Your task to perform on an android device: Open Amazon Image 0: 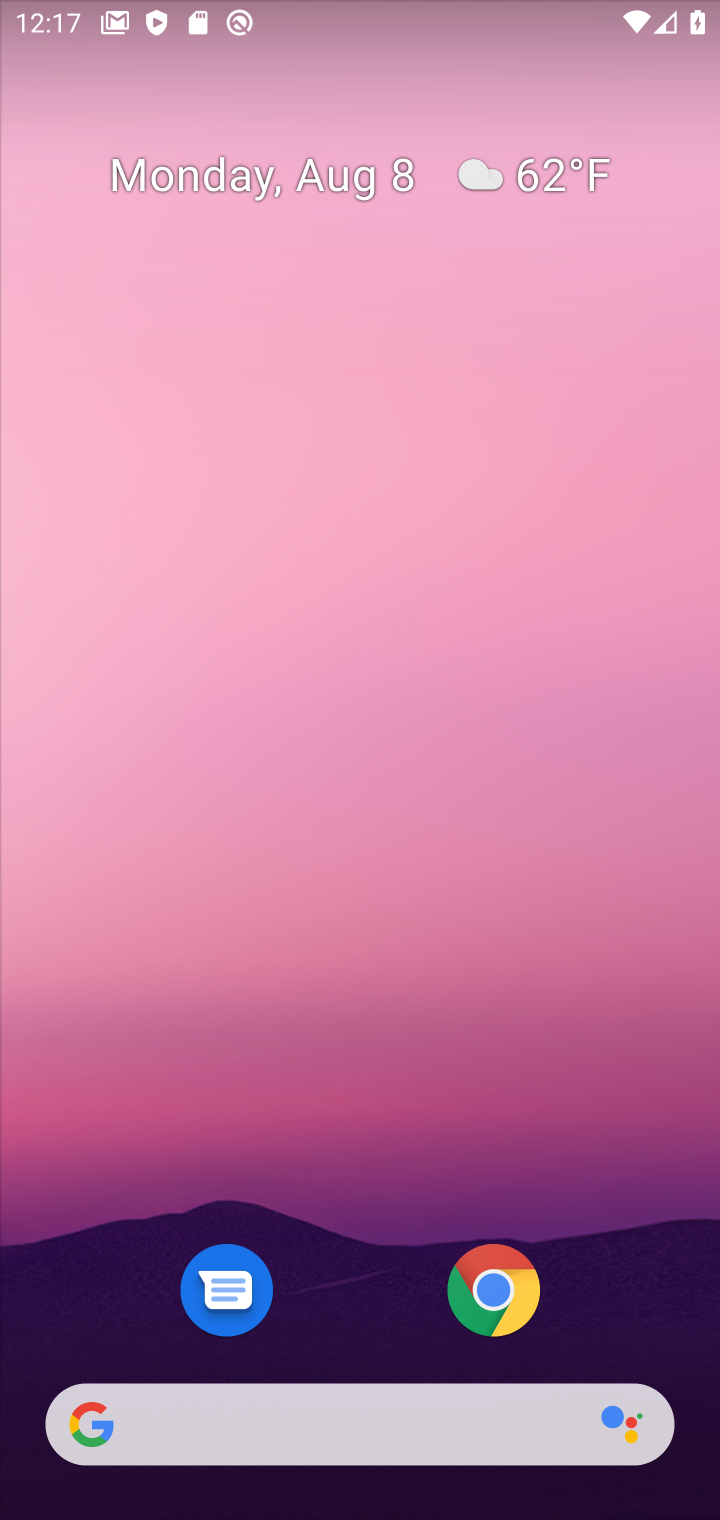
Step 0: click (503, 1266)
Your task to perform on an android device: Open Amazon Image 1: 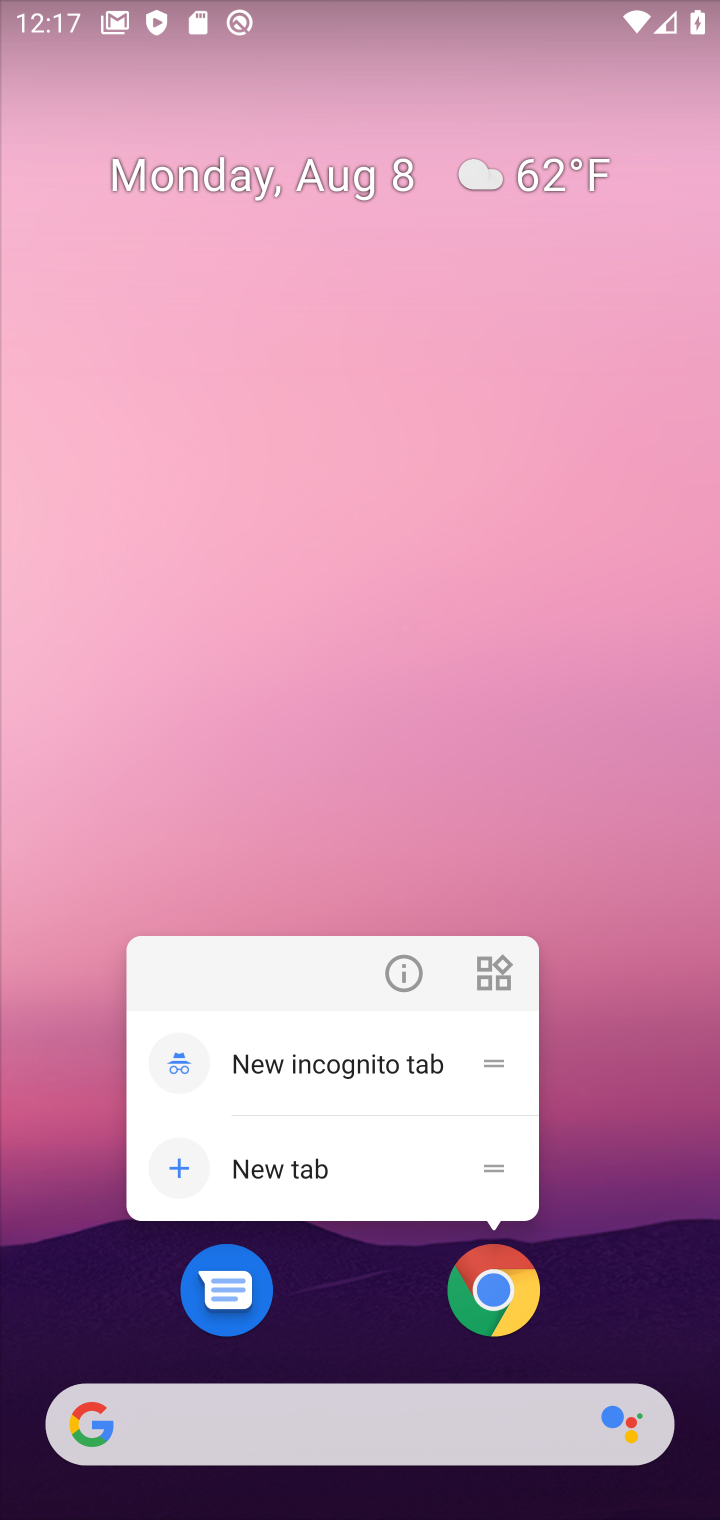
Step 1: click (503, 1266)
Your task to perform on an android device: Open Amazon Image 2: 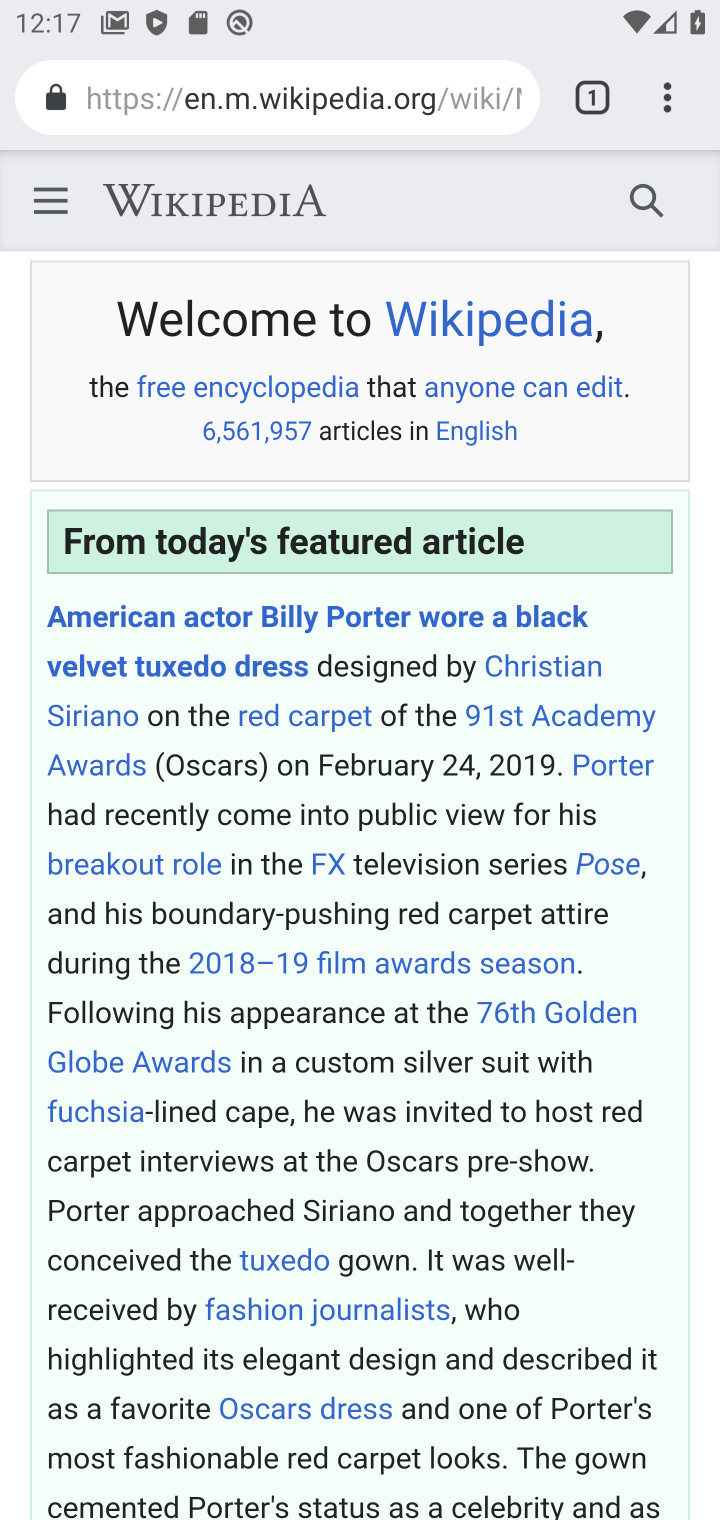
Step 2: click (352, 103)
Your task to perform on an android device: Open Amazon Image 3: 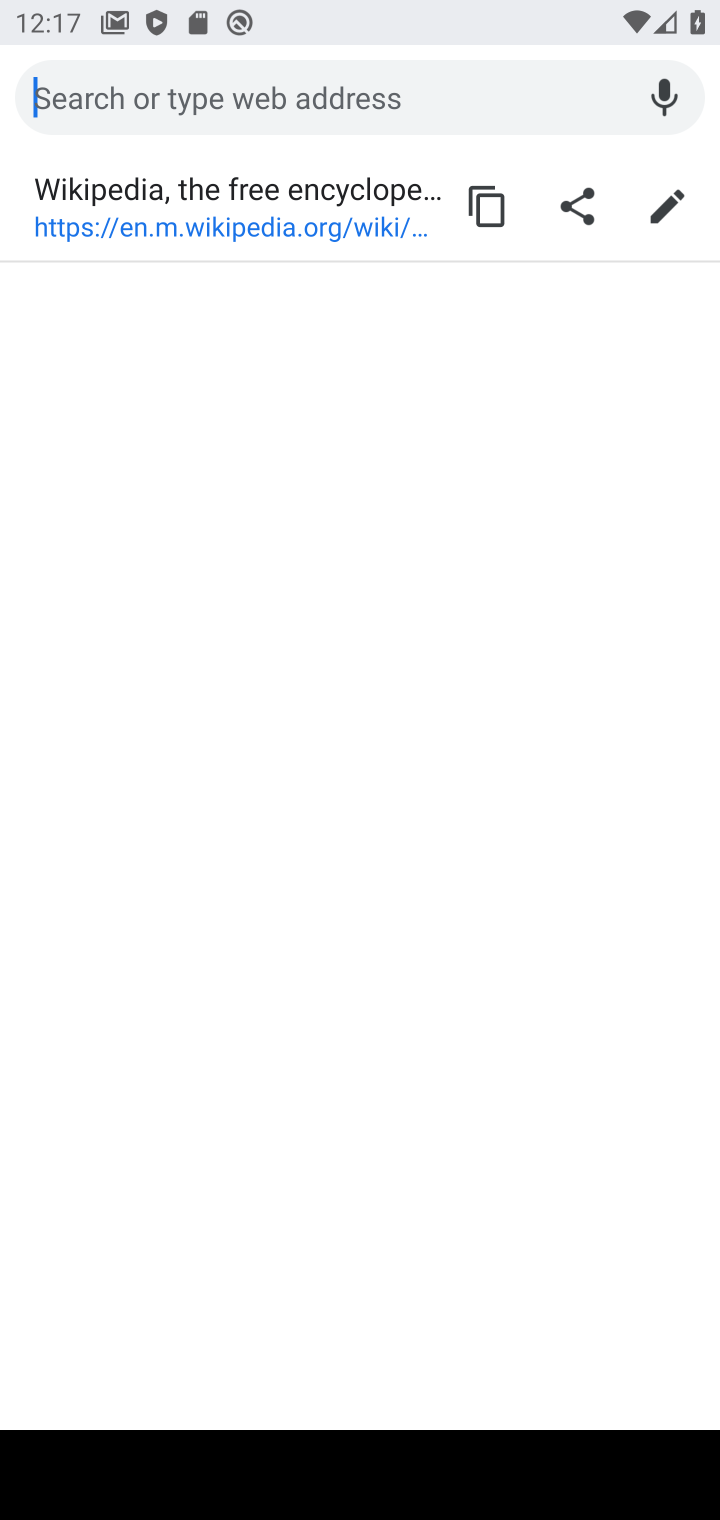
Step 3: type "amazon"
Your task to perform on an android device: Open Amazon Image 4: 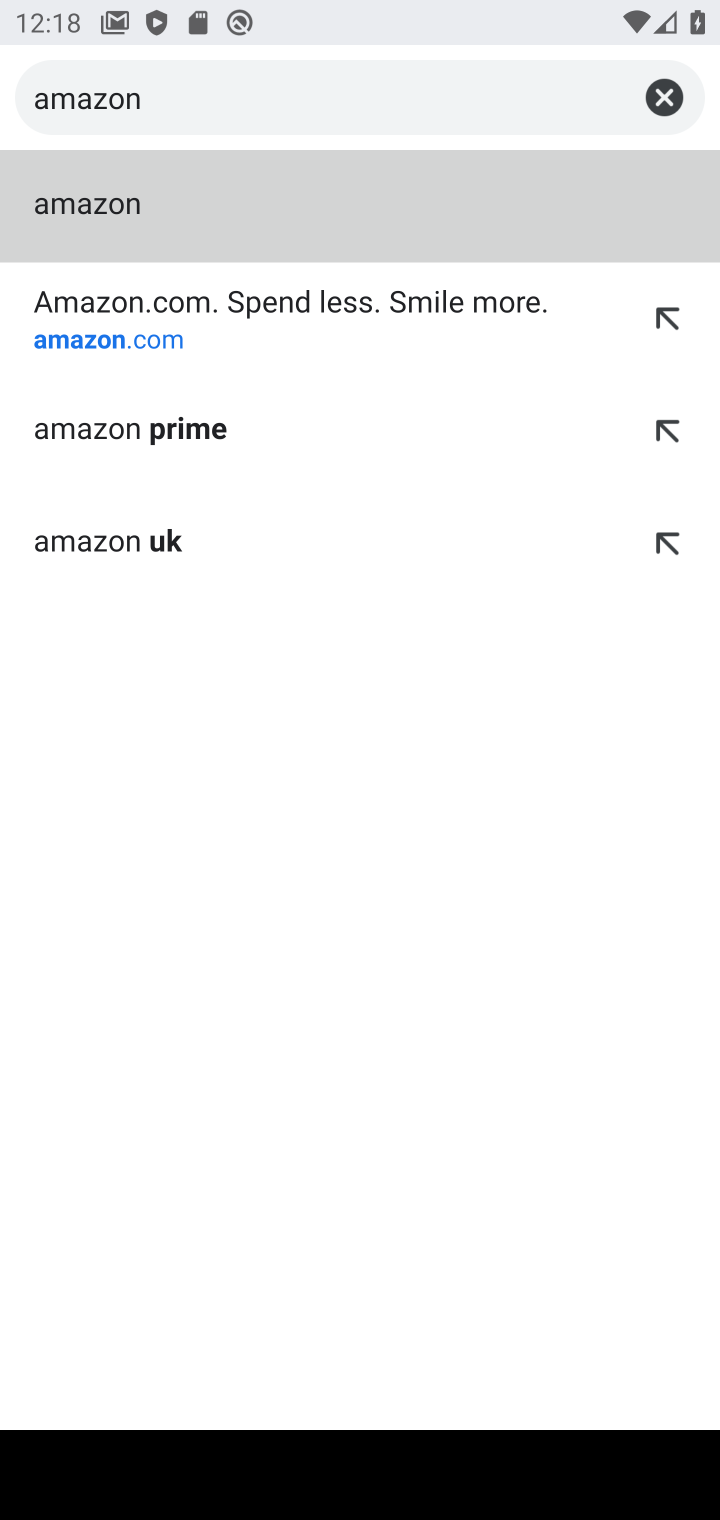
Step 4: click (262, 209)
Your task to perform on an android device: Open Amazon Image 5: 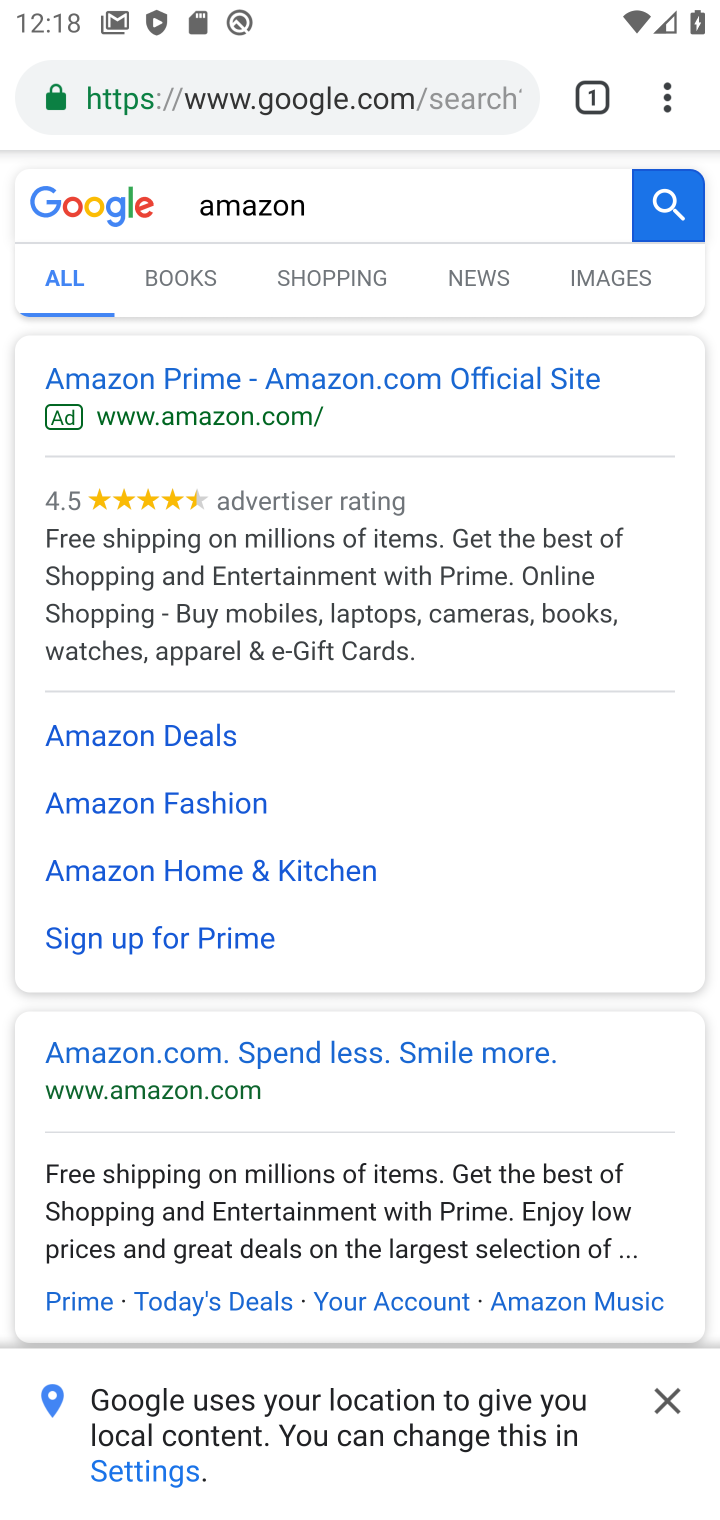
Step 5: click (190, 1049)
Your task to perform on an android device: Open Amazon Image 6: 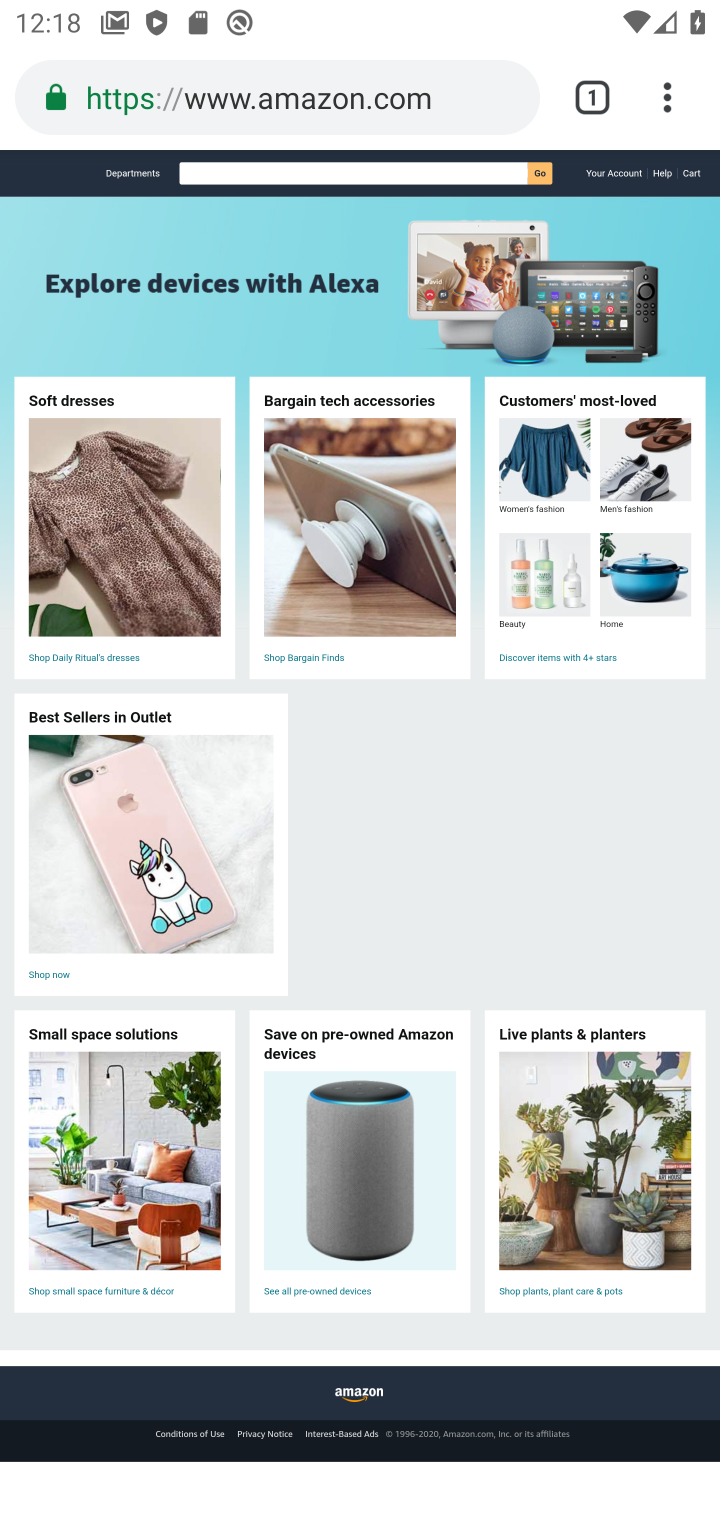
Step 6: task complete